Your task to perform on an android device: Open Wikipedia Image 0: 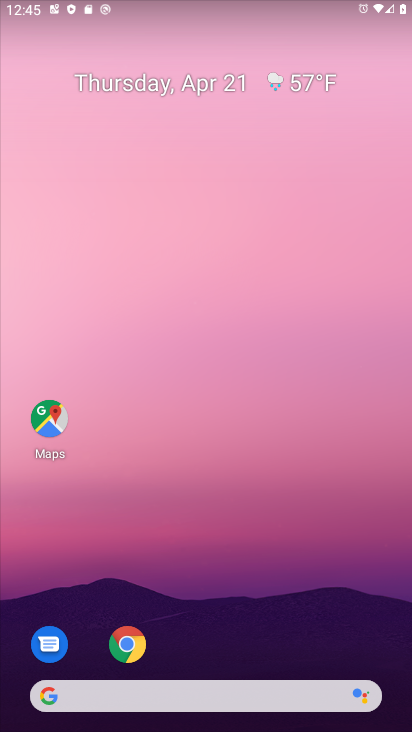
Step 0: click (134, 642)
Your task to perform on an android device: Open Wikipedia Image 1: 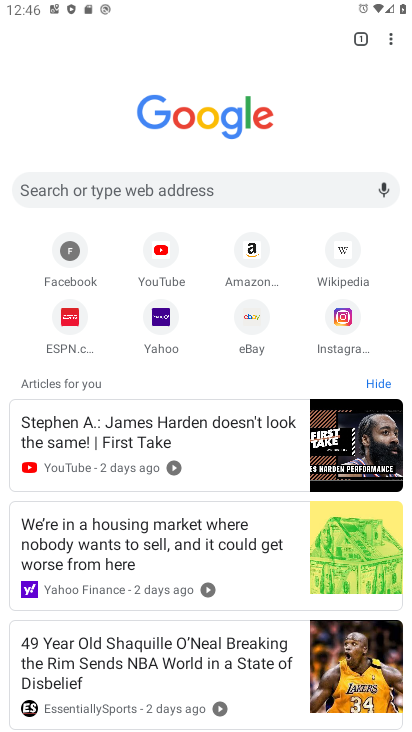
Step 1: click (342, 255)
Your task to perform on an android device: Open Wikipedia Image 2: 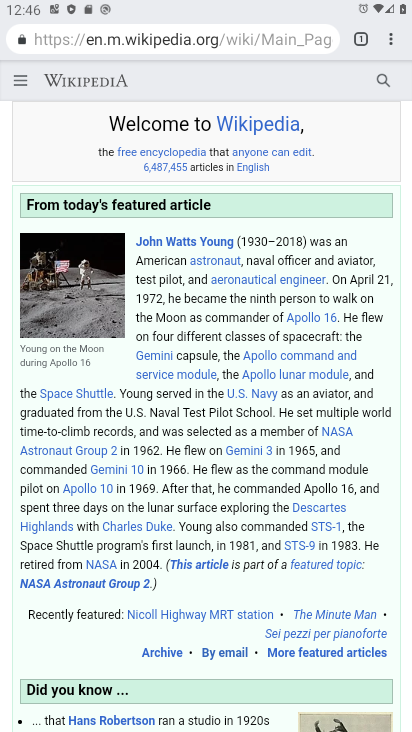
Step 2: task complete